Your task to perform on an android device: Go to Reddit.com Image 0: 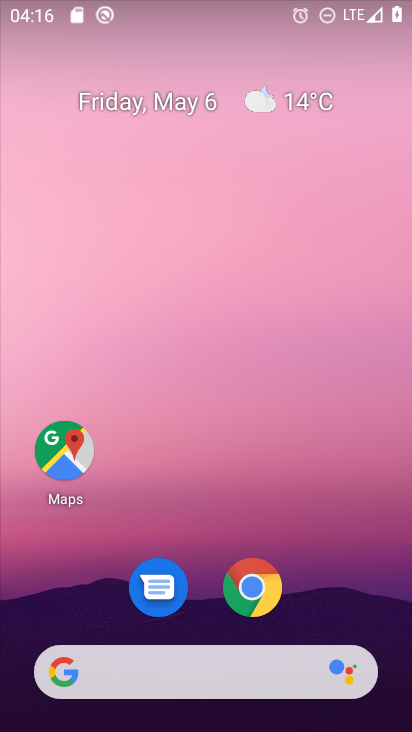
Step 0: click (253, 583)
Your task to perform on an android device: Go to Reddit.com Image 1: 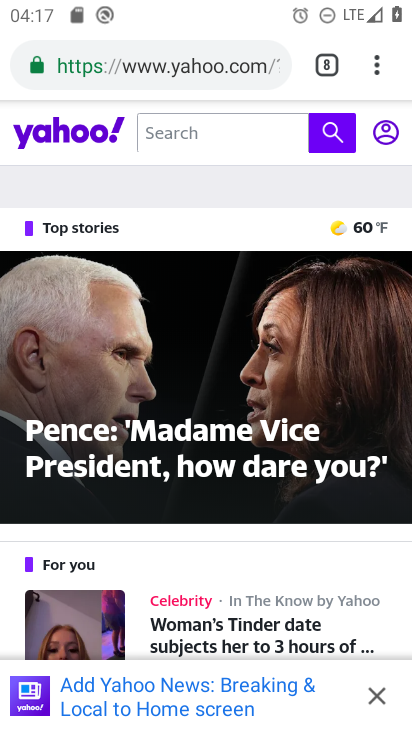
Step 1: click (331, 61)
Your task to perform on an android device: Go to Reddit.com Image 2: 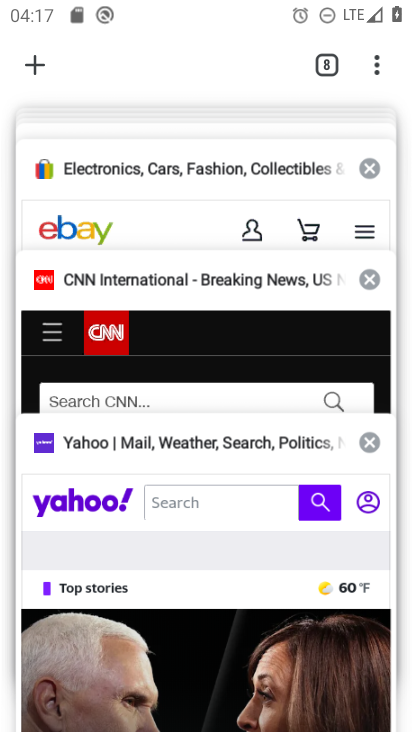
Step 2: click (31, 62)
Your task to perform on an android device: Go to Reddit.com Image 3: 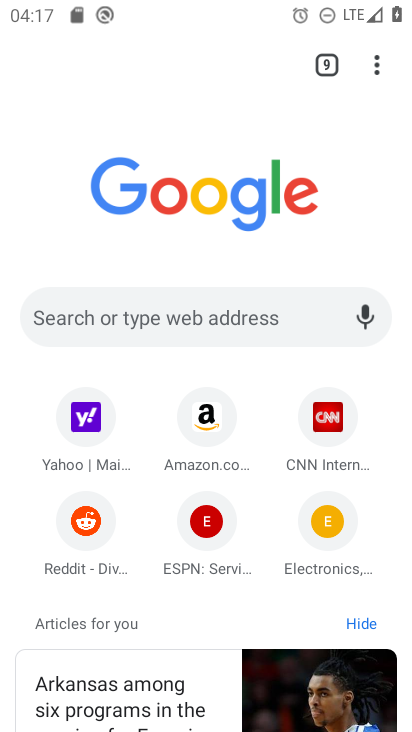
Step 3: click (80, 522)
Your task to perform on an android device: Go to Reddit.com Image 4: 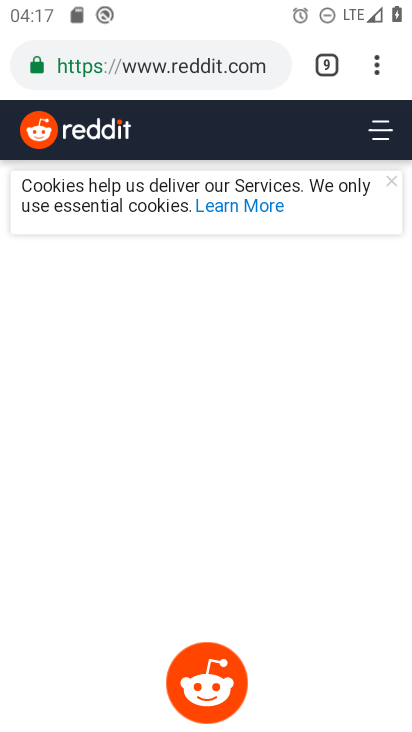
Step 4: task complete